Your task to perform on an android device: Show me popular videos on Youtube Image 0: 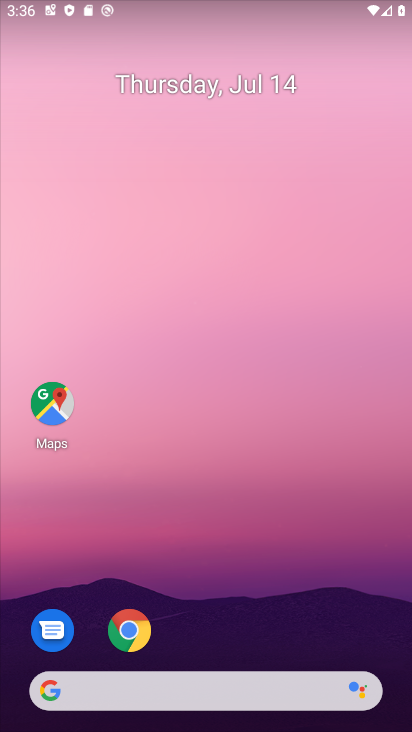
Step 0: drag from (274, 634) to (197, 230)
Your task to perform on an android device: Show me popular videos on Youtube Image 1: 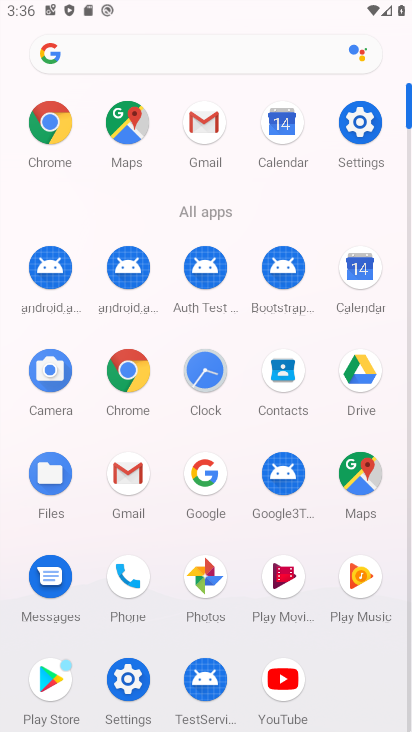
Step 1: click (282, 687)
Your task to perform on an android device: Show me popular videos on Youtube Image 2: 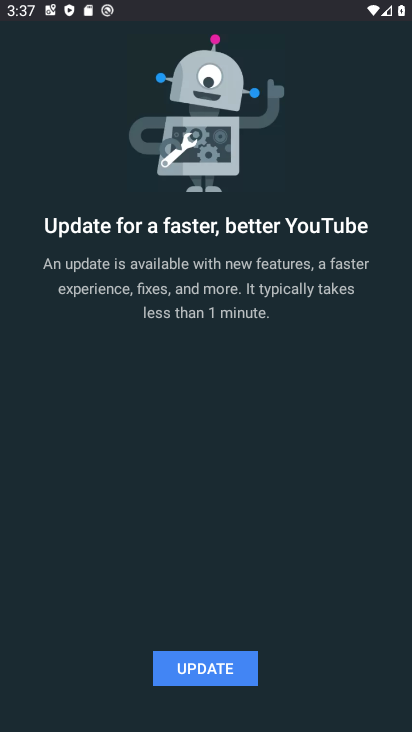
Step 2: task complete